Your task to perform on an android device: What's the weather today? Image 0: 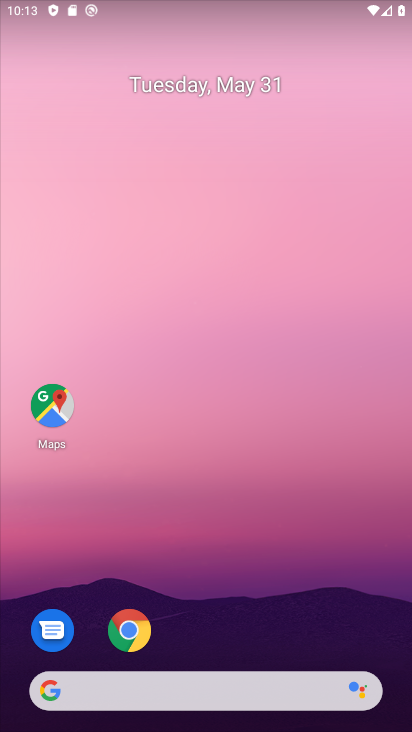
Step 0: drag from (249, 326) to (264, 114)
Your task to perform on an android device: What's the weather today? Image 1: 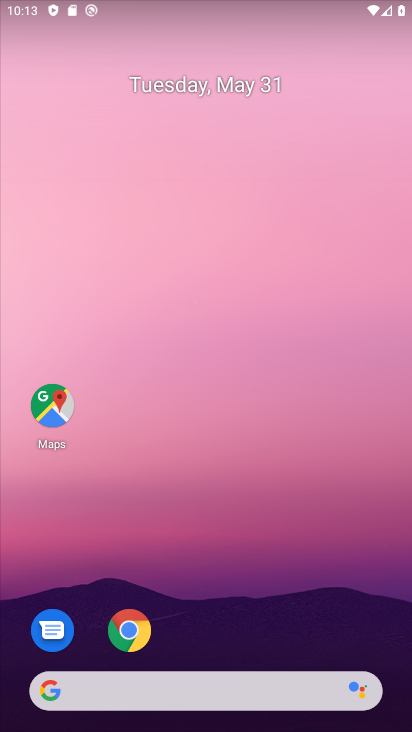
Step 1: drag from (287, 609) to (240, 159)
Your task to perform on an android device: What's the weather today? Image 2: 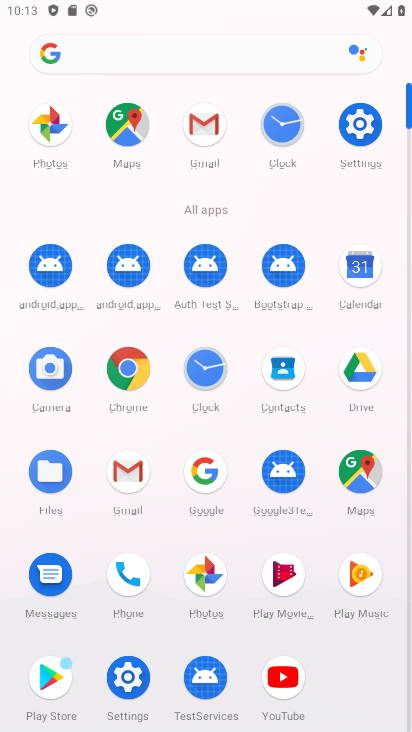
Step 2: press home button
Your task to perform on an android device: What's the weather today? Image 3: 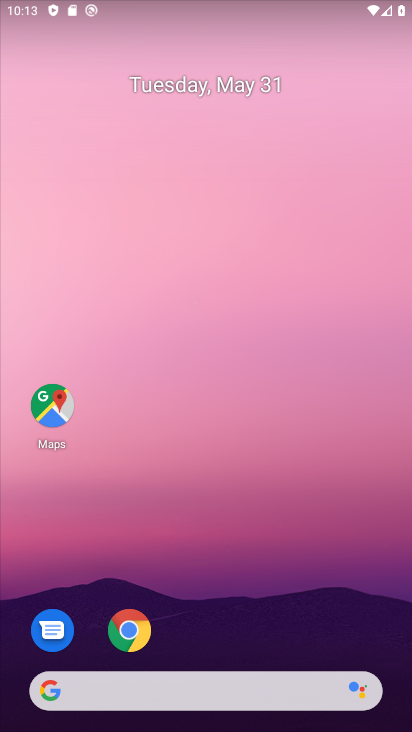
Step 3: click (123, 629)
Your task to perform on an android device: What's the weather today? Image 4: 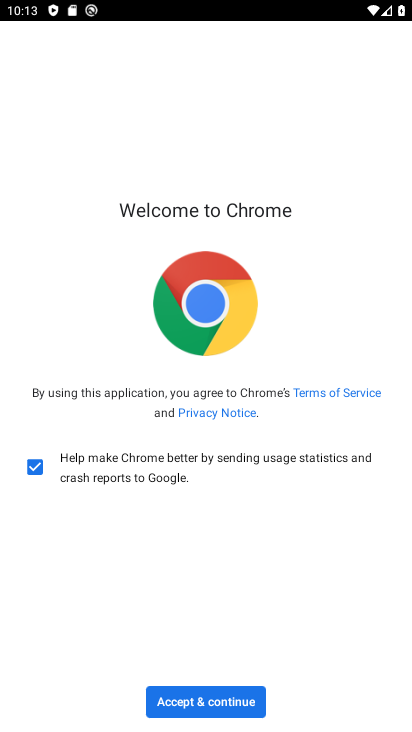
Step 4: click (187, 693)
Your task to perform on an android device: What's the weather today? Image 5: 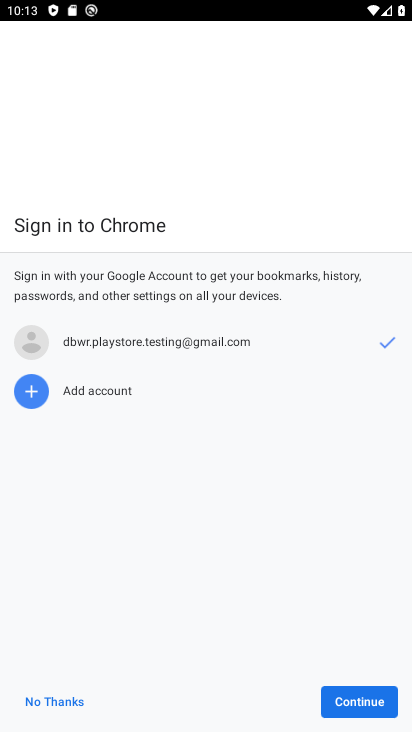
Step 5: click (371, 708)
Your task to perform on an android device: What's the weather today? Image 6: 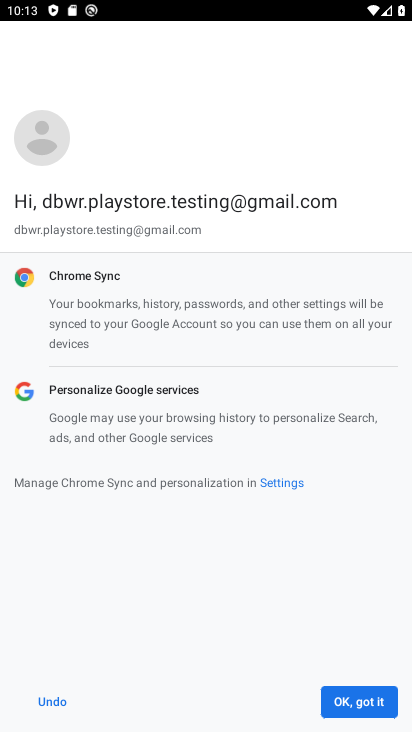
Step 6: click (337, 692)
Your task to perform on an android device: What's the weather today? Image 7: 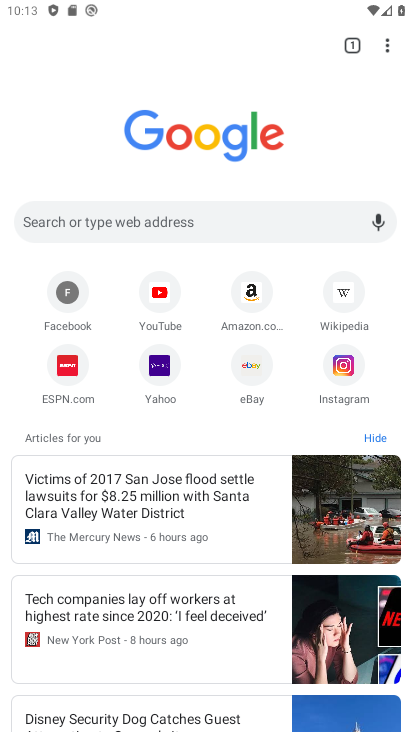
Step 7: click (129, 220)
Your task to perform on an android device: What's the weather today? Image 8: 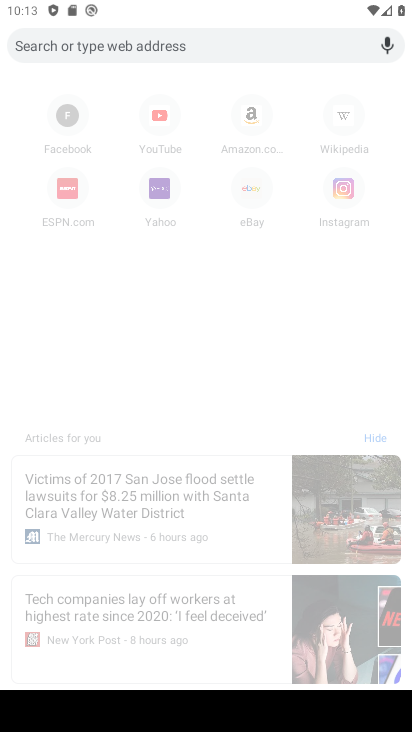
Step 8: type "weather"
Your task to perform on an android device: What's the weather today? Image 9: 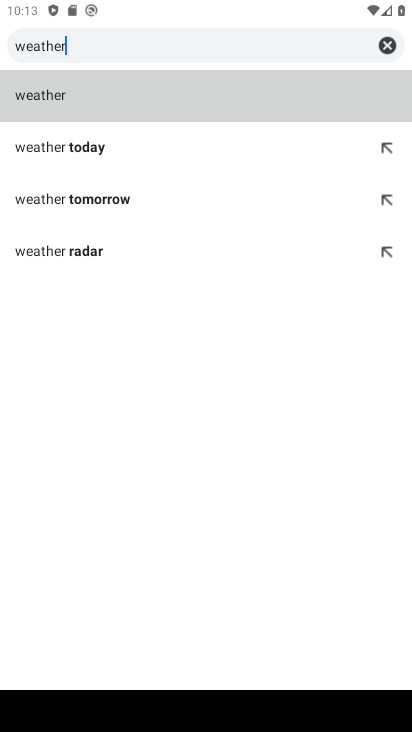
Step 9: click (32, 95)
Your task to perform on an android device: What's the weather today? Image 10: 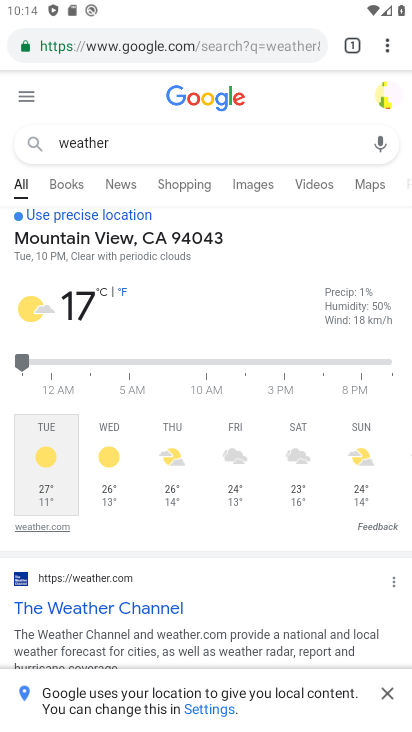
Step 10: task complete